Your task to perform on an android device: toggle wifi Image 0: 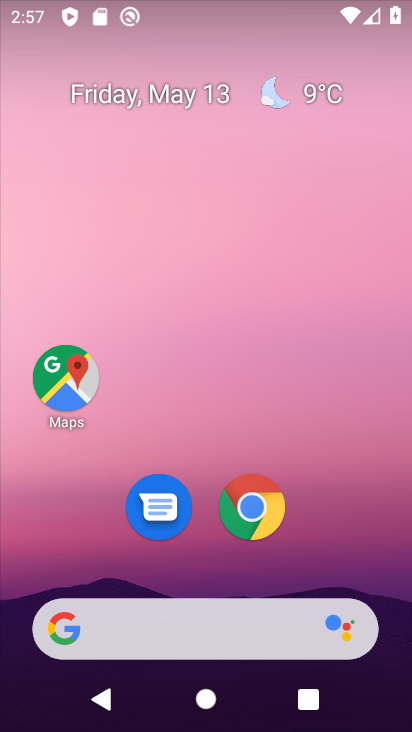
Step 0: drag from (256, 466) to (293, 235)
Your task to perform on an android device: toggle wifi Image 1: 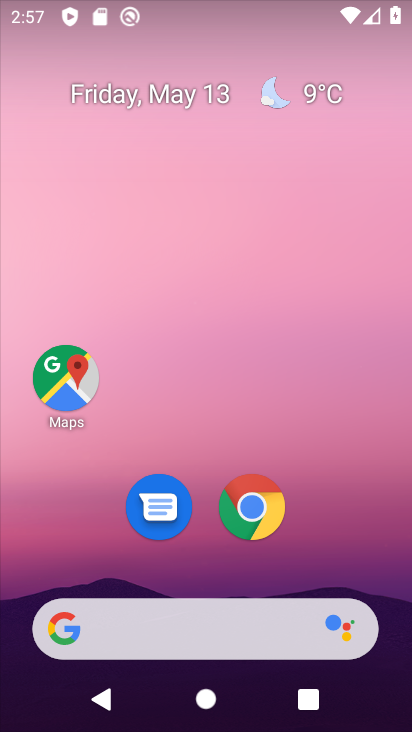
Step 1: drag from (245, 703) to (195, 199)
Your task to perform on an android device: toggle wifi Image 2: 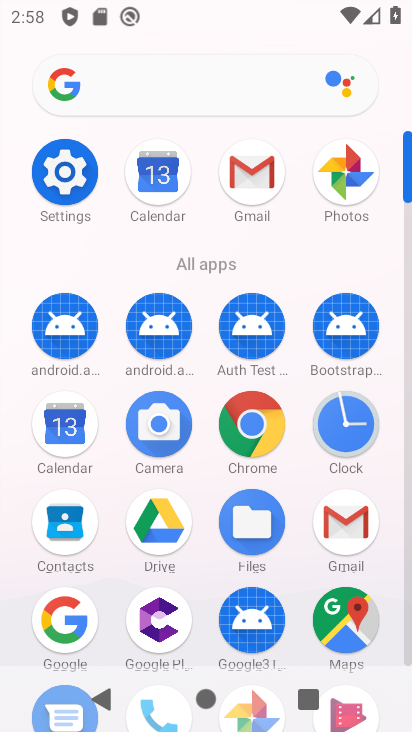
Step 2: click (83, 199)
Your task to perform on an android device: toggle wifi Image 3: 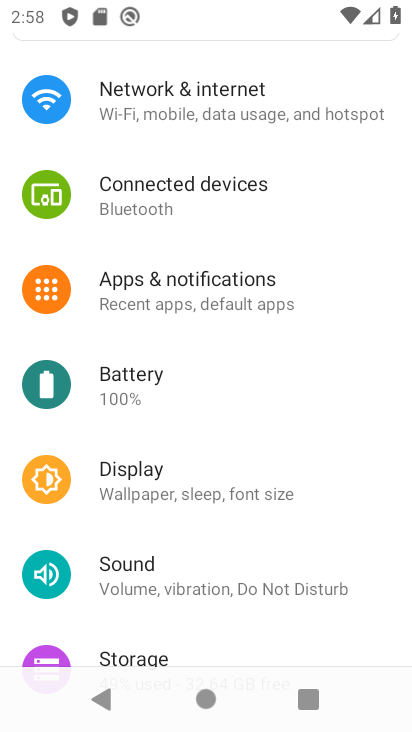
Step 3: click (291, 111)
Your task to perform on an android device: toggle wifi Image 4: 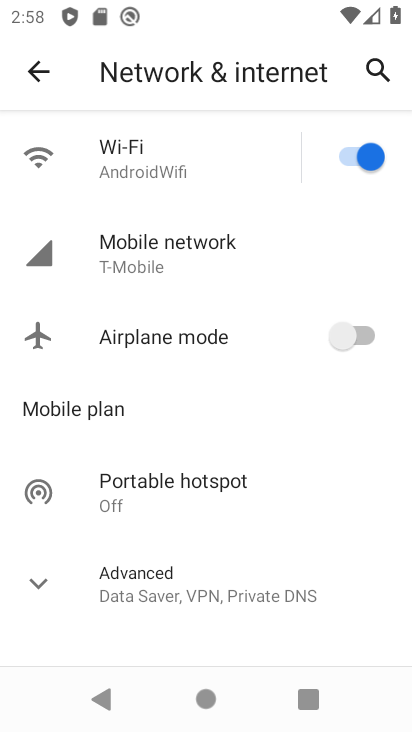
Step 4: click (366, 152)
Your task to perform on an android device: toggle wifi Image 5: 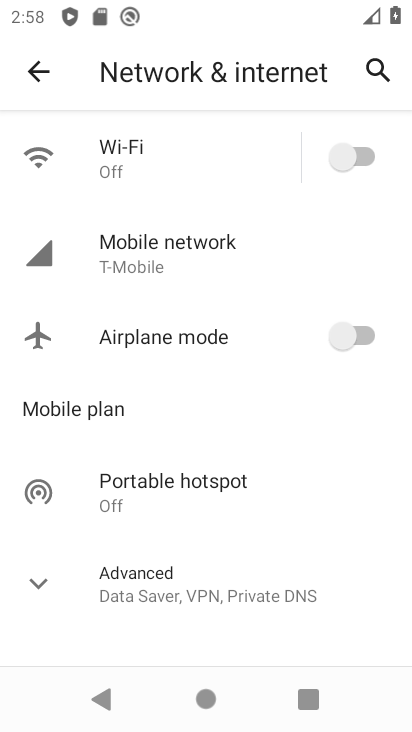
Step 5: task complete